Your task to perform on an android device: turn off location history Image 0: 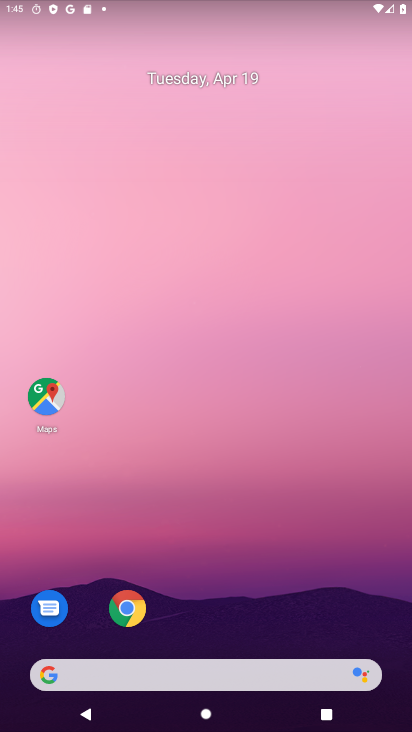
Step 0: click (203, 37)
Your task to perform on an android device: turn off location history Image 1: 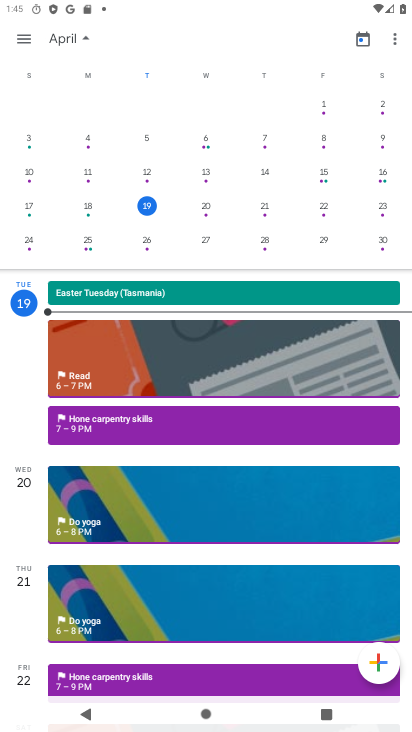
Step 1: press home button
Your task to perform on an android device: turn off location history Image 2: 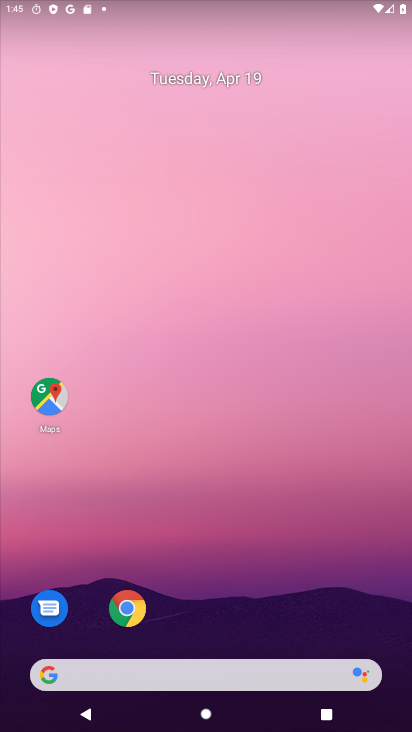
Step 2: drag from (276, 515) to (248, 7)
Your task to perform on an android device: turn off location history Image 3: 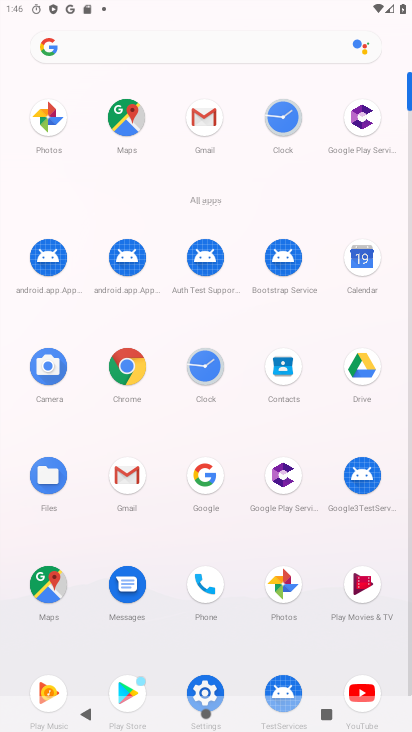
Step 3: click (125, 132)
Your task to perform on an android device: turn off location history Image 4: 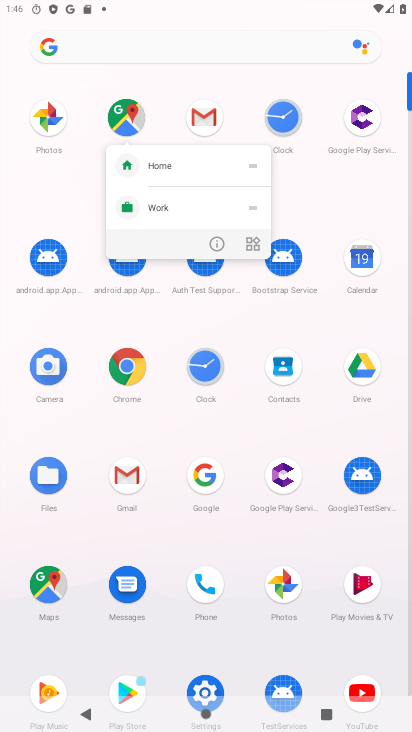
Step 4: click (123, 125)
Your task to perform on an android device: turn off location history Image 5: 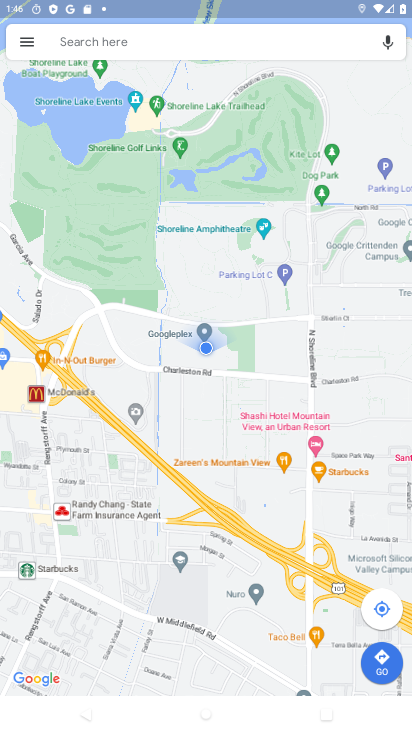
Step 5: click (25, 42)
Your task to perform on an android device: turn off location history Image 6: 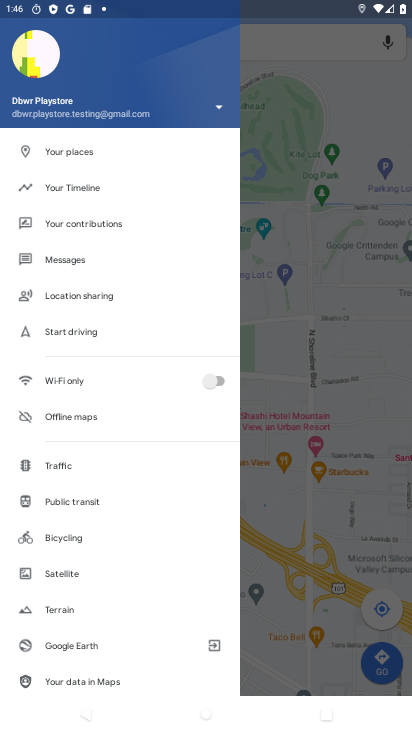
Step 6: click (158, 176)
Your task to perform on an android device: turn off location history Image 7: 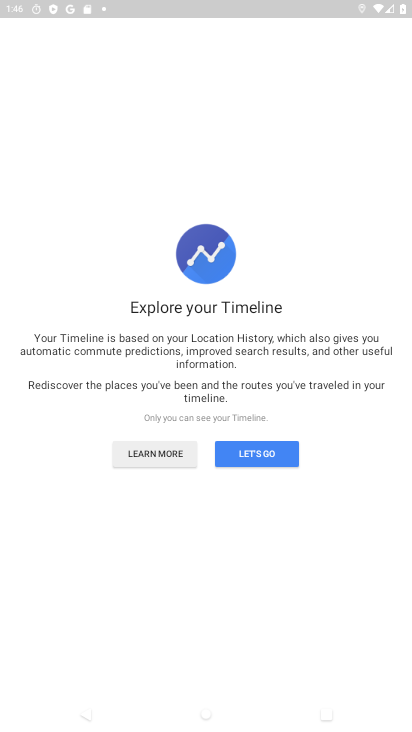
Step 7: click (267, 447)
Your task to perform on an android device: turn off location history Image 8: 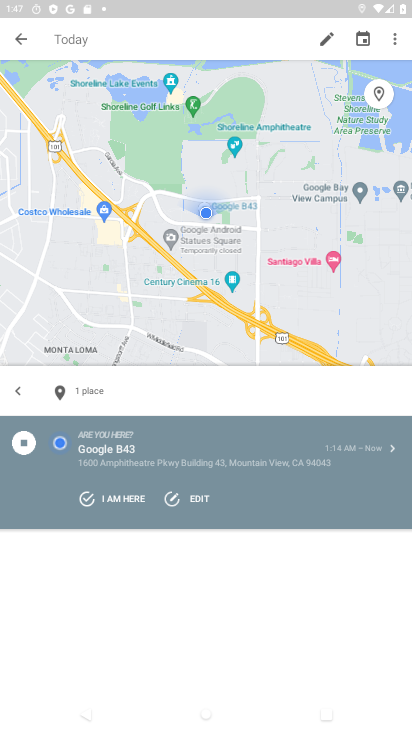
Step 8: click (393, 39)
Your task to perform on an android device: turn off location history Image 9: 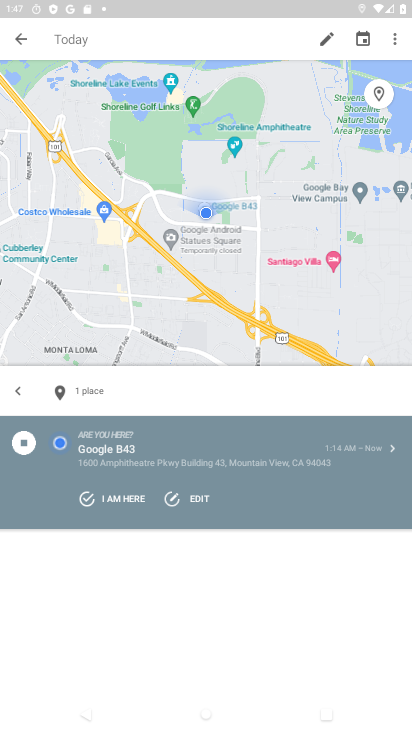
Step 9: click (395, 45)
Your task to perform on an android device: turn off location history Image 10: 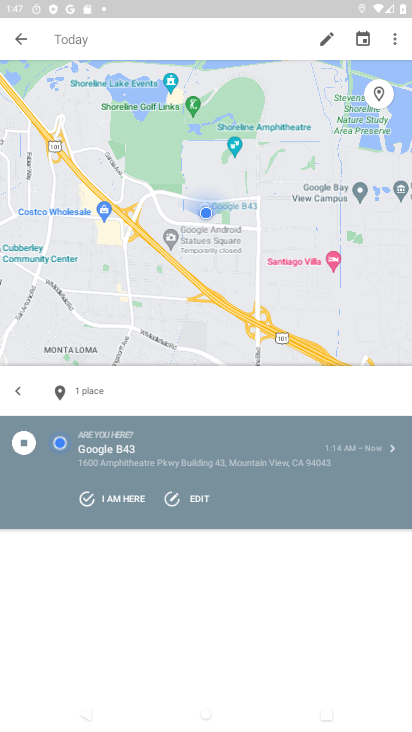
Step 10: click (393, 37)
Your task to perform on an android device: turn off location history Image 11: 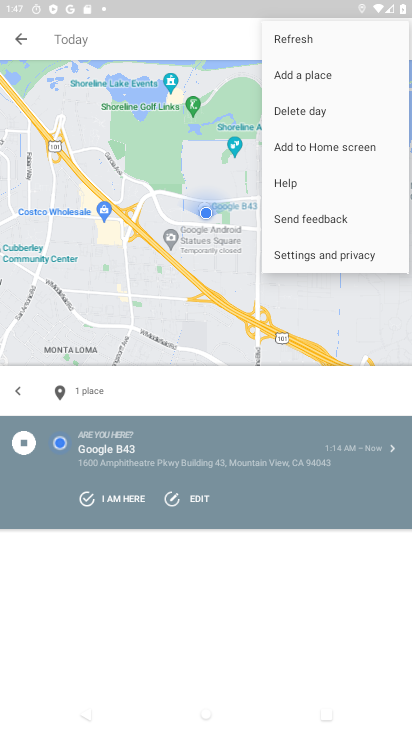
Step 11: click (332, 247)
Your task to perform on an android device: turn off location history Image 12: 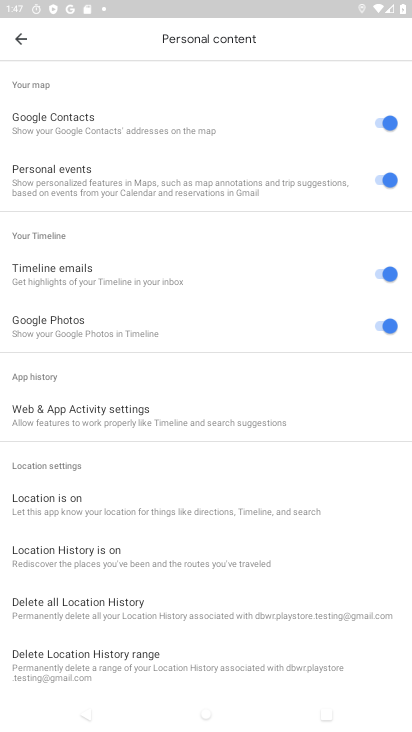
Step 12: click (120, 554)
Your task to perform on an android device: turn off location history Image 13: 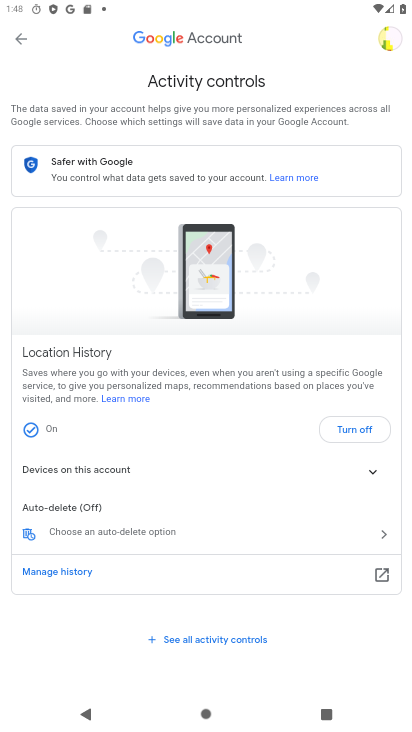
Step 13: click (357, 429)
Your task to perform on an android device: turn off location history Image 14: 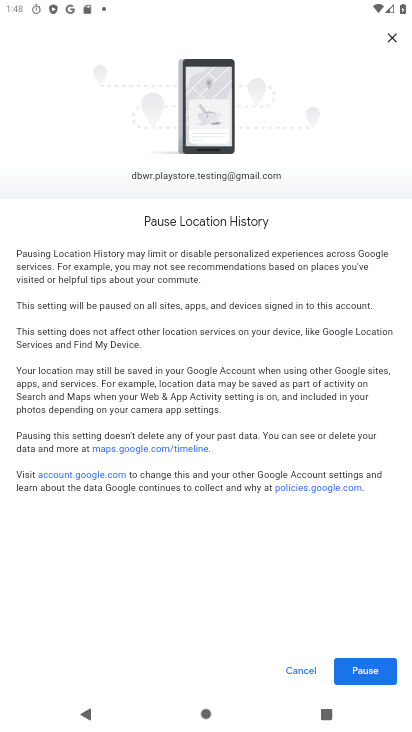
Step 14: click (375, 667)
Your task to perform on an android device: turn off location history Image 15: 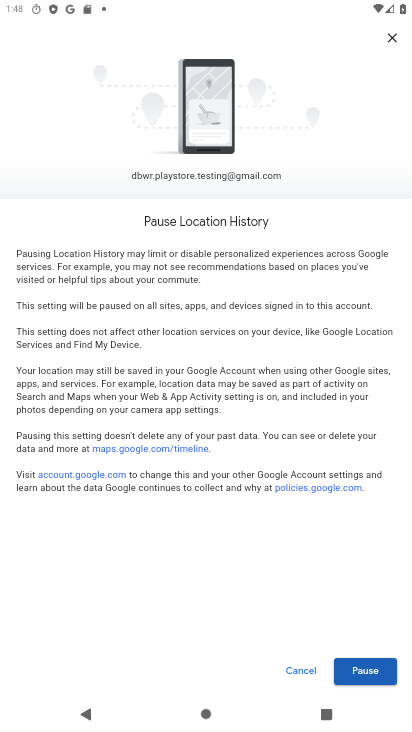
Step 15: click (373, 673)
Your task to perform on an android device: turn off location history Image 16: 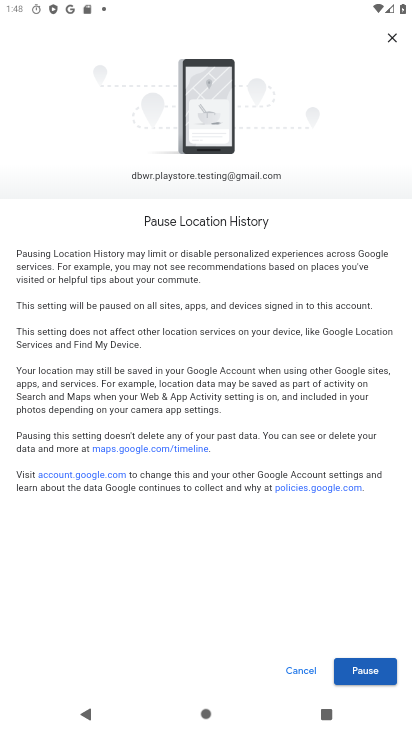
Step 16: click (372, 672)
Your task to perform on an android device: turn off location history Image 17: 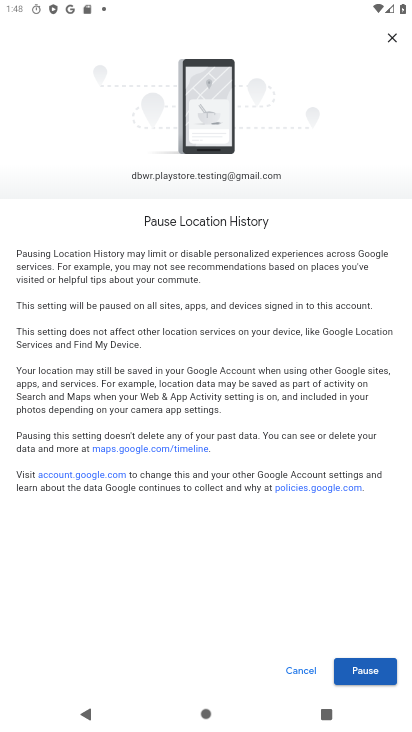
Step 17: click (353, 668)
Your task to perform on an android device: turn off location history Image 18: 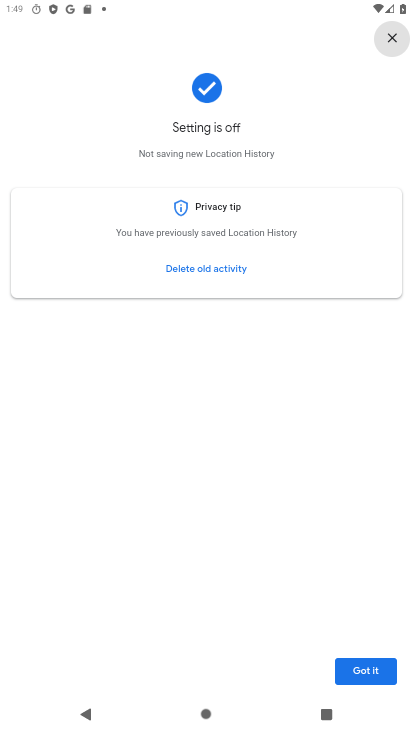
Step 18: click (353, 668)
Your task to perform on an android device: turn off location history Image 19: 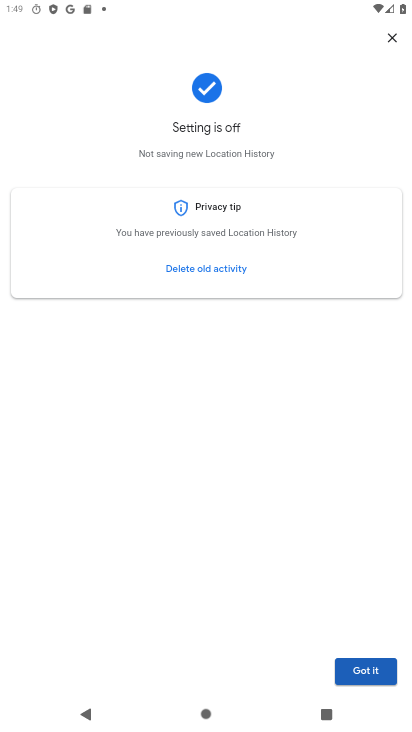
Step 19: click (388, 672)
Your task to perform on an android device: turn off location history Image 20: 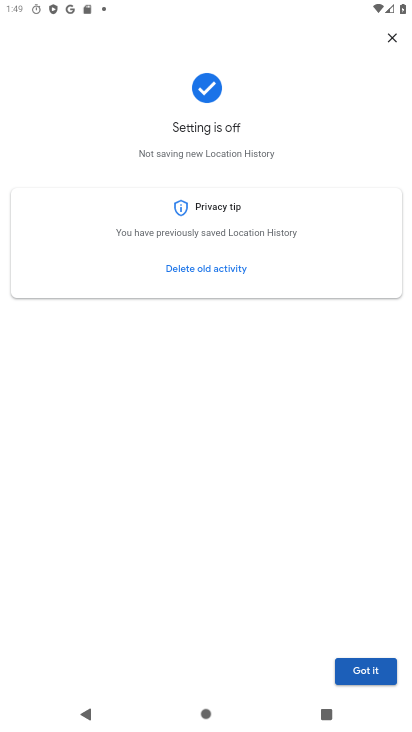
Step 20: click (355, 666)
Your task to perform on an android device: turn off location history Image 21: 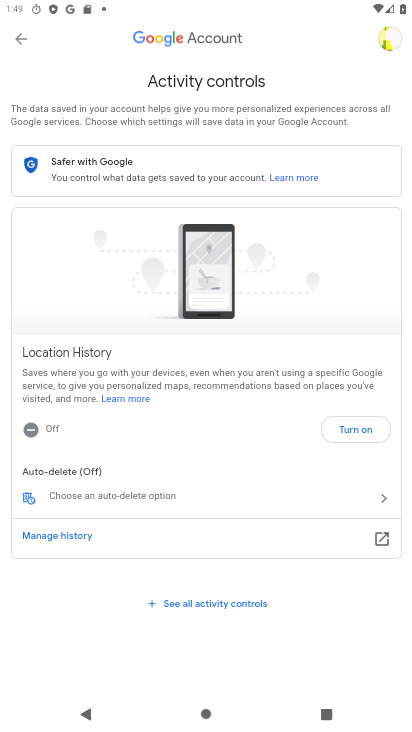
Step 21: task complete